Your task to perform on an android device: Open the calendar and show me this week's events? Image 0: 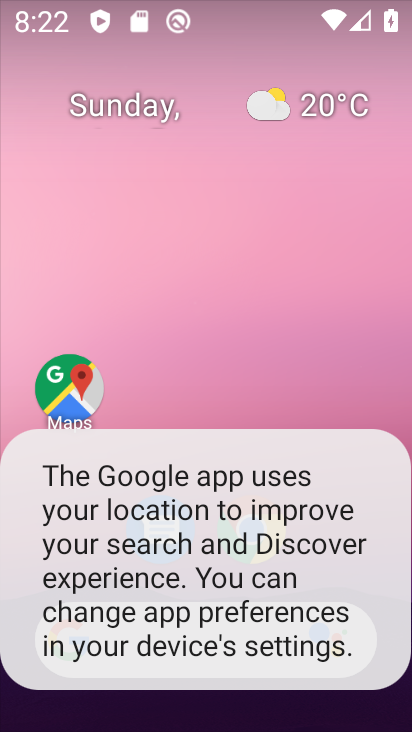
Step 0: press home button
Your task to perform on an android device: Open the calendar and show me this week's events? Image 1: 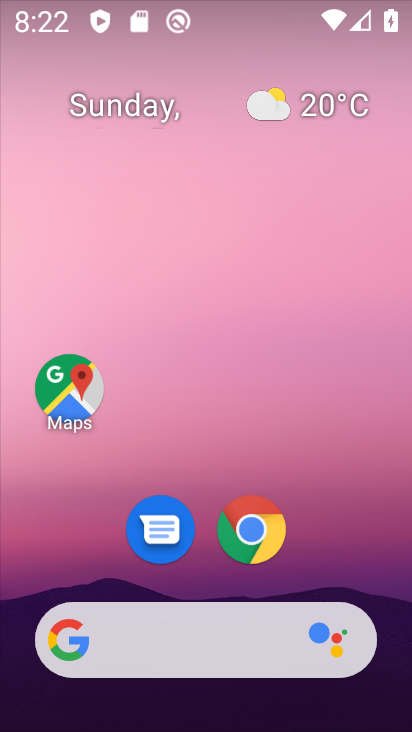
Step 1: drag from (207, 580) to (203, 80)
Your task to perform on an android device: Open the calendar and show me this week's events? Image 2: 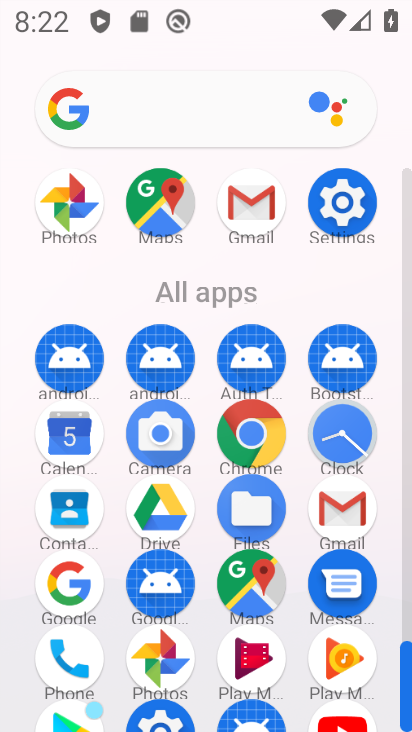
Step 2: click (69, 427)
Your task to perform on an android device: Open the calendar and show me this week's events? Image 3: 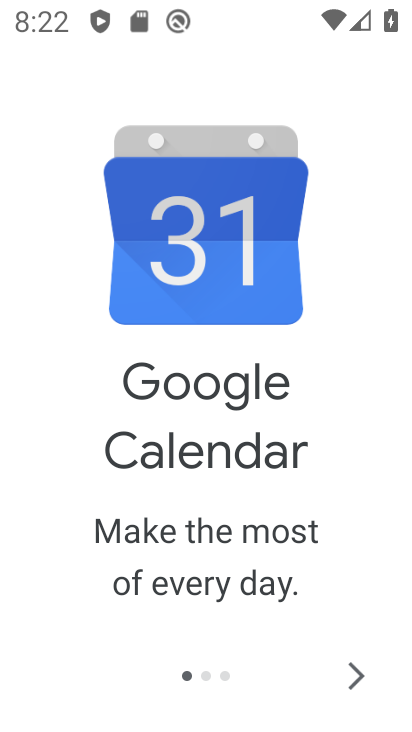
Step 3: click (349, 667)
Your task to perform on an android device: Open the calendar and show me this week's events? Image 4: 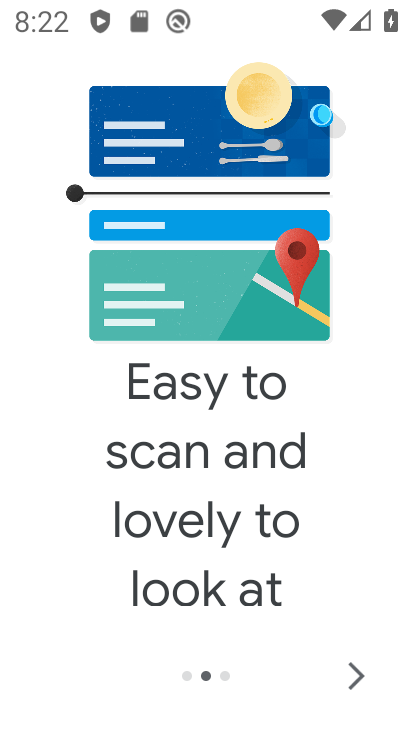
Step 4: click (349, 664)
Your task to perform on an android device: Open the calendar and show me this week's events? Image 5: 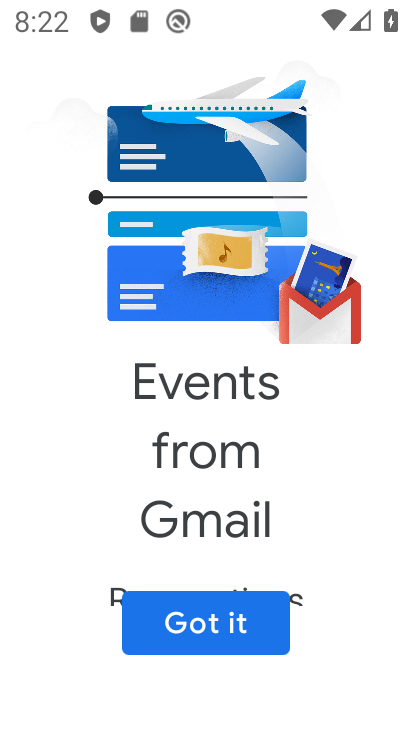
Step 5: click (209, 616)
Your task to perform on an android device: Open the calendar and show me this week's events? Image 6: 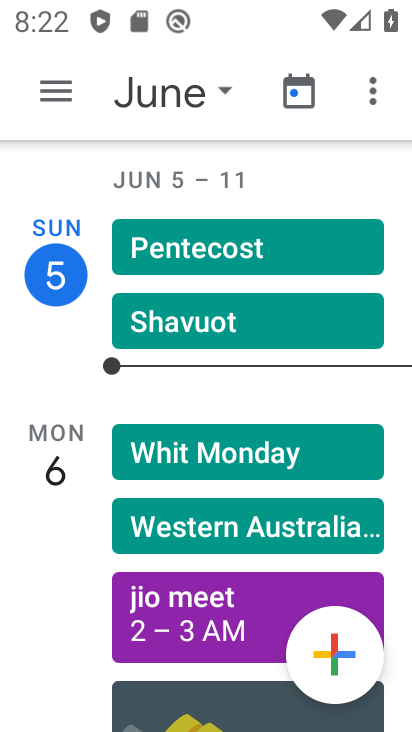
Step 6: click (60, 88)
Your task to perform on an android device: Open the calendar and show me this week's events? Image 7: 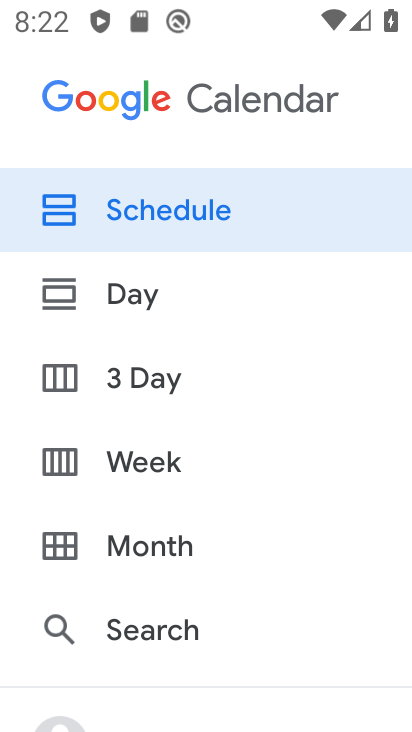
Step 7: drag from (112, 562) to (157, 66)
Your task to perform on an android device: Open the calendar and show me this week's events? Image 8: 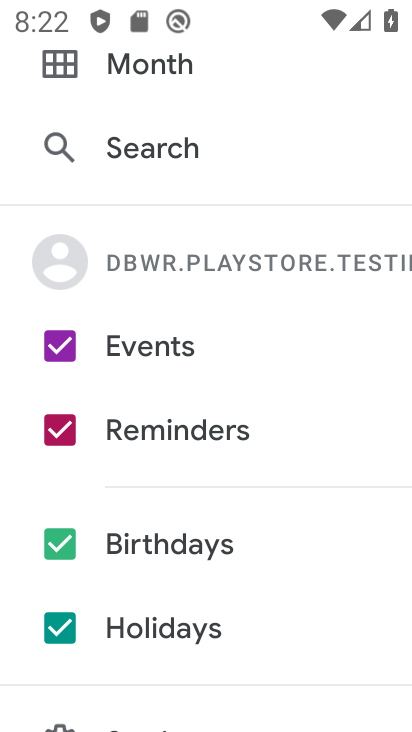
Step 8: click (65, 624)
Your task to perform on an android device: Open the calendar and show me this week's events? Image 9: 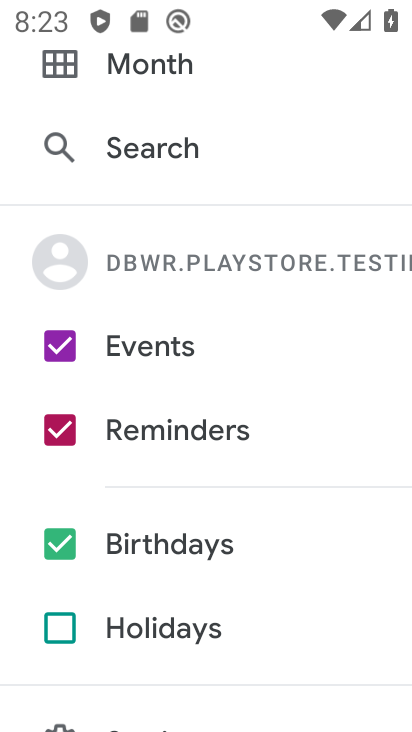
Step 9: click (58, 541)
Your task to perform on an android device: Open the calendar and show me this week's events? Image 10: 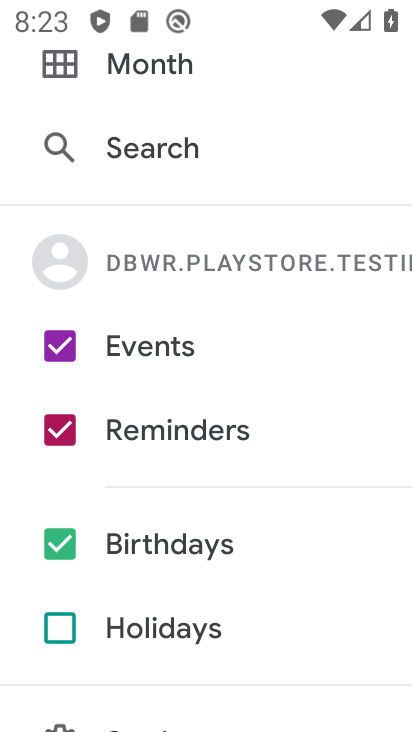
Step 10: click (65, 422)
Your task to perform on an android device: Open the calendar and show me this week's events? Image 11: 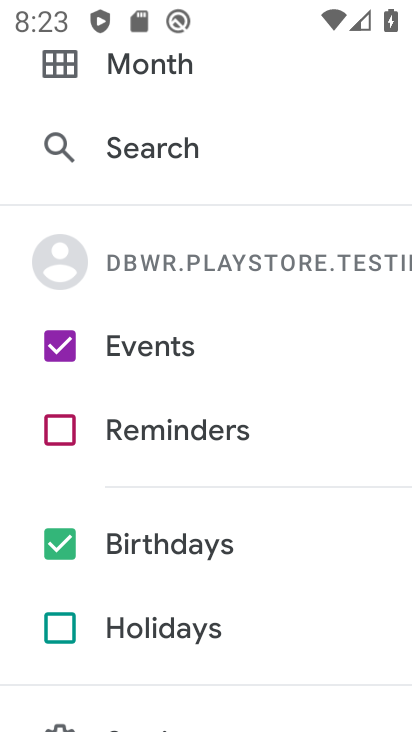
Step 11: click (63, 537)
Your task to perform on an android device: Open the calendar and show me this week's events? Image 12: 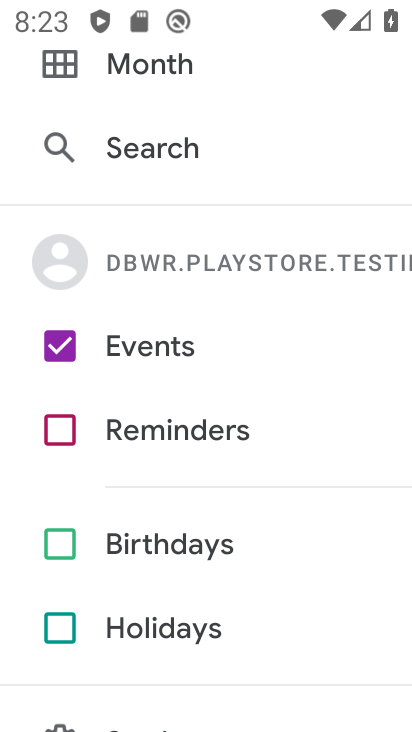
Step 12: drag from (172, 154) to (149, 531)
Your task to perform on an android device: Open the calendar and show me this week's events? Image 13: 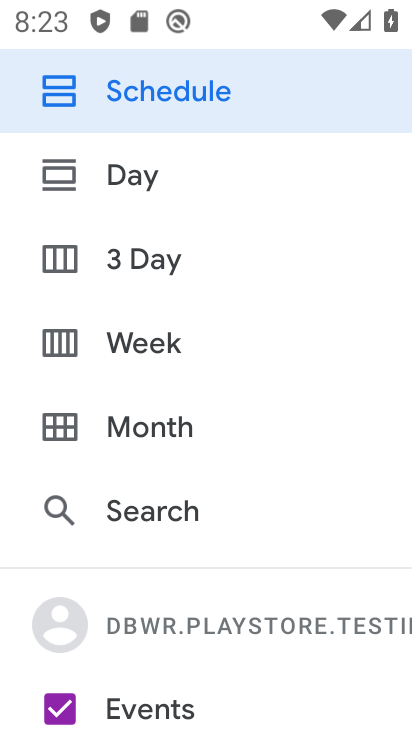
Step 13: click (95, 341)
Your task to perform on an android device: Open the calendar and show me this week's events? Image 14: 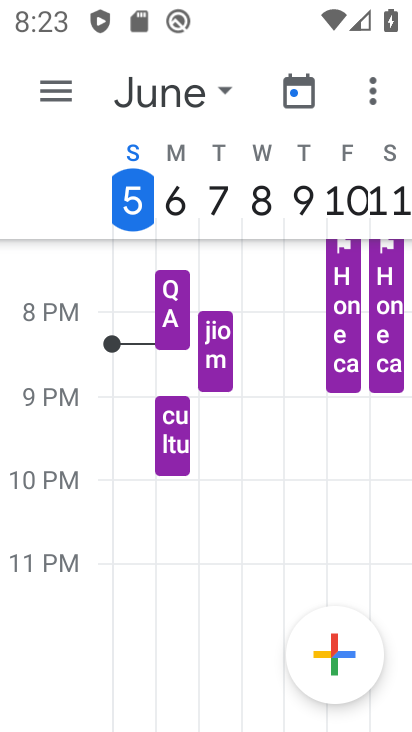
Step 14: click (134, 197)
Your task to perform on an android device: Open the calendar and show me this week's events? Image 15: 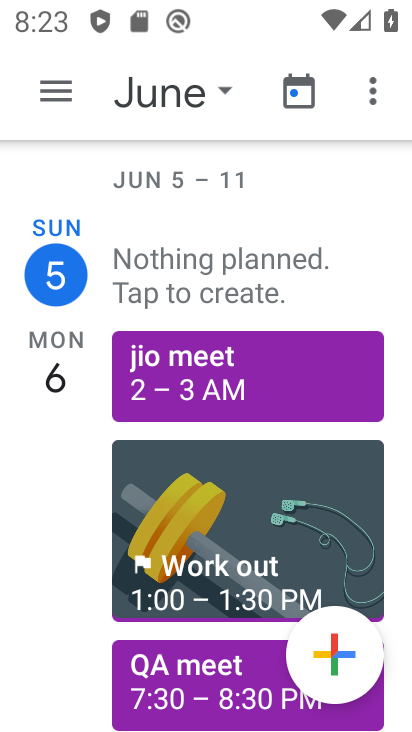
Step 15: task complete